Your task to perform on an android device: Open calendar and show me the second week of next month Image 0: 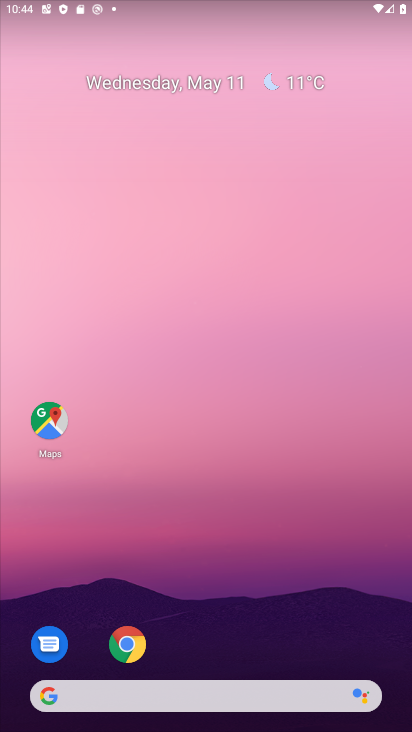
Step 0: drag from (226, 650) to (225, 125)
Your task to perform on an android device: Open calendar and show me the second week of next month Image 1: 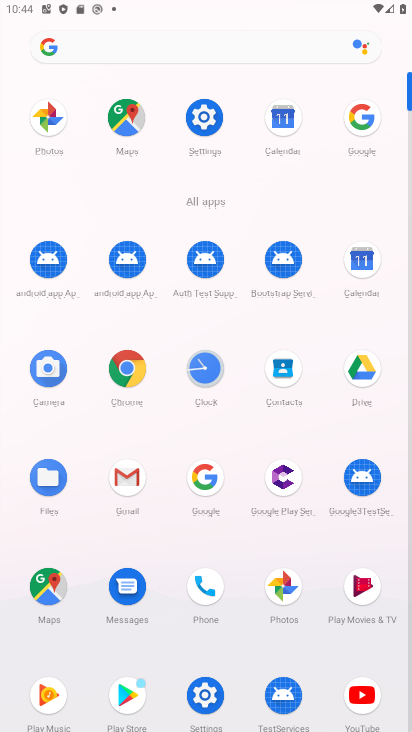
Step 1: click (358, 260)
Your task to perform on an android device: Open calendar and show me the second week of next month Image 2: 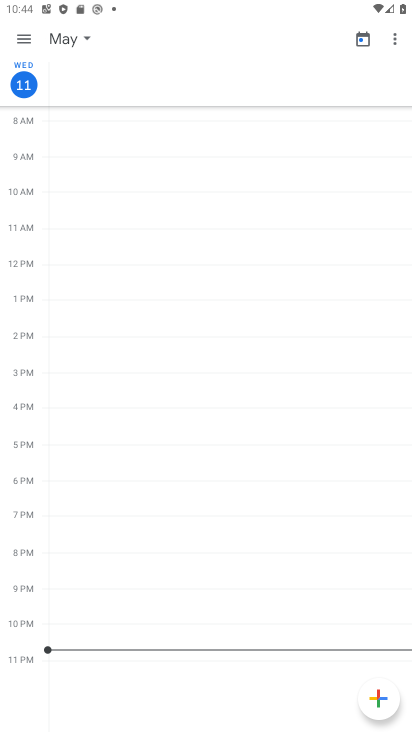
Step 2: click (75, 38)
Your task to perform on an android device: Open calendar and show me the second week of next month Image 3: 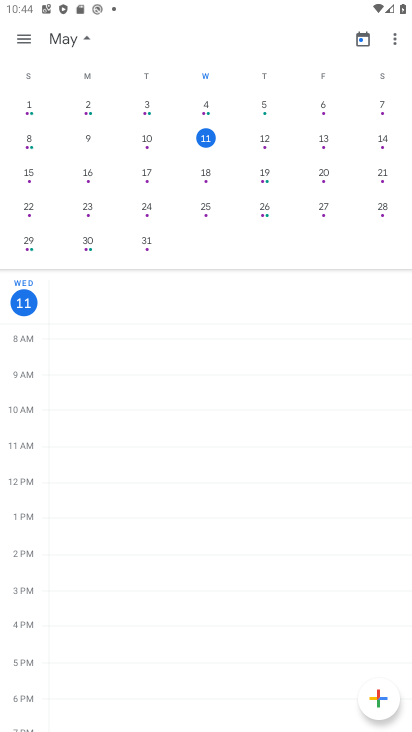
Step 3: drag from (327, 153) to (263, 162)
Your task to perform on an android device: Open calendar and show me the second week of next month Image 4: 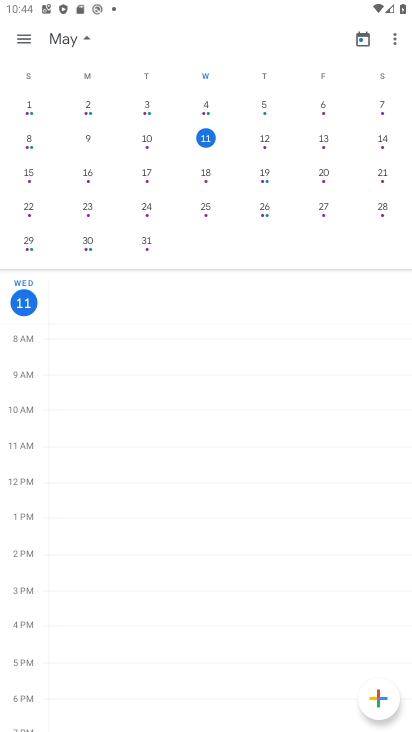
Step 4: drag from (346, 147) to (95, 157)
Your task to perform on an android device: Open calendar and show me the second week of next month Image 5: 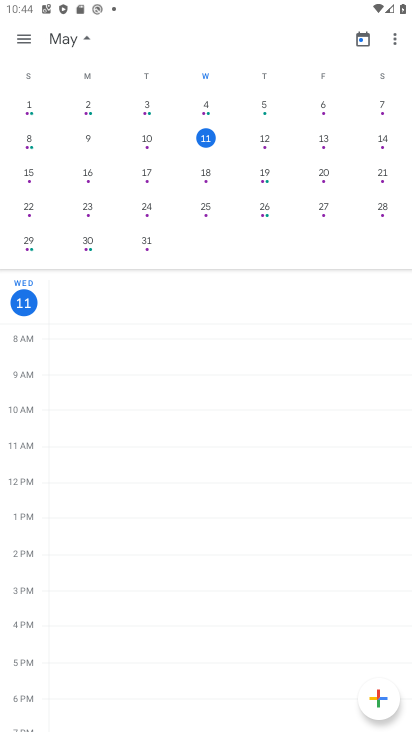
Step 5: drag from (329, 159) to (0, 176)
Your task to perform on an android device: Open calendar and show me the second week of next month Image 6: 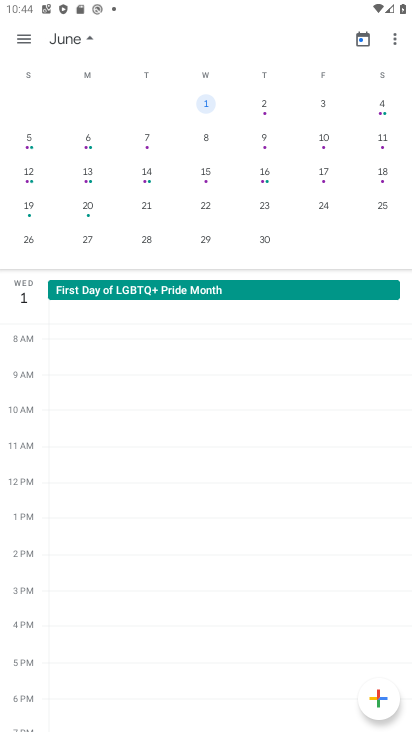
Step 6: click (24, 140)
Your task to perform on an android device: Open calendar and show me the second week of next month Image 7: 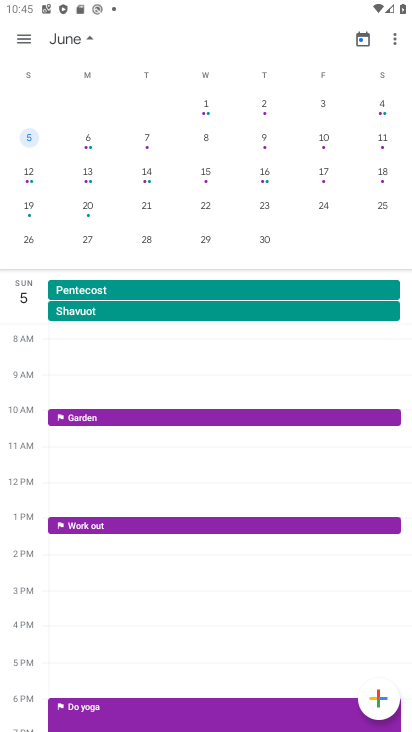
Step 7: click (85, 43)
Your task to perform on an android device: Open calendar and show me the second week of next month Image 8: 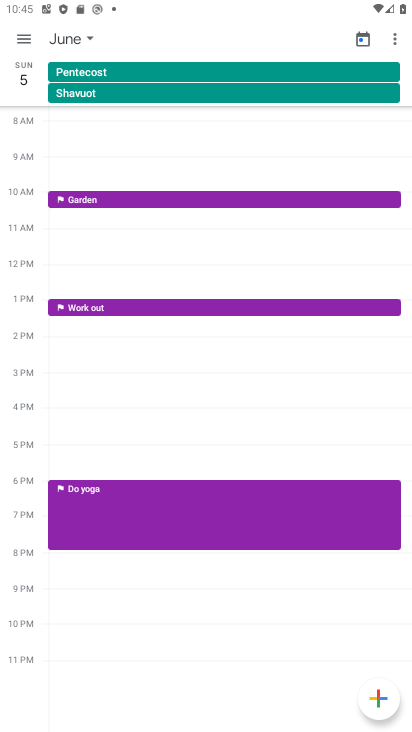
Step 8: click (30, 92)
Your task to perform on an android device: Open calendar and show me the second week of next month Image 9: 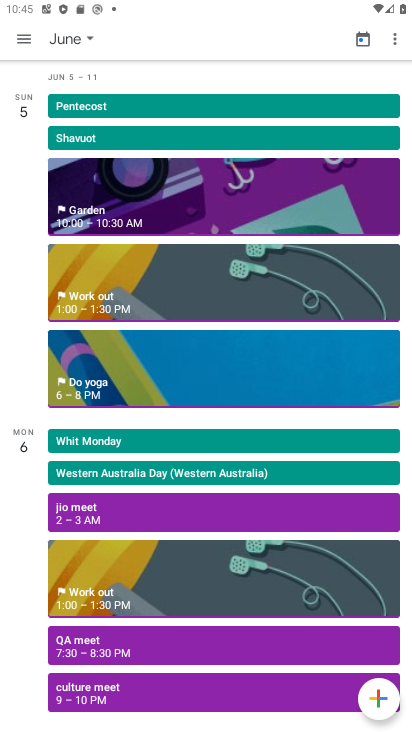
Step 9: task complete